Your task to perform on an android device: change your default location settings in chrome Image 0: 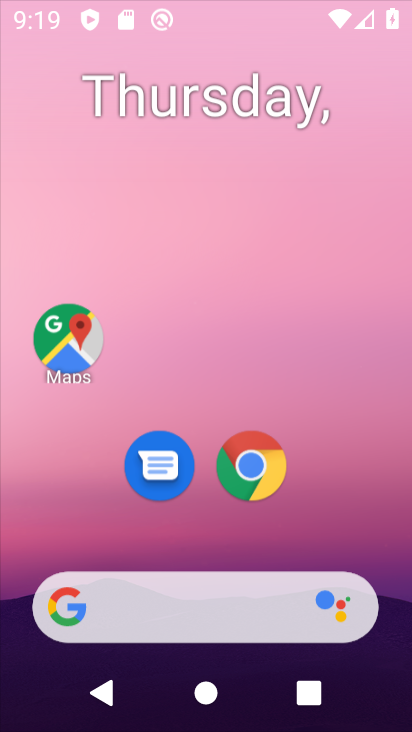
Step 0: drag from (365, 462) to (334, 85)
Your task to perform on an android device: change your default location settings in chrome Image 1: 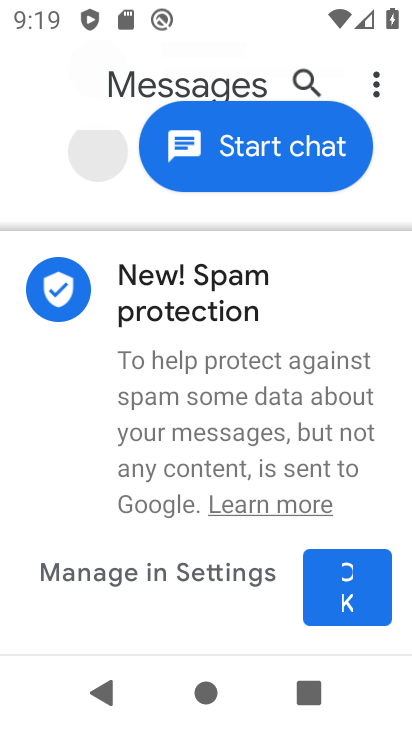
Step 1: press home button
Your task to perform on an android device: change your default location settings in chrome Image 2: 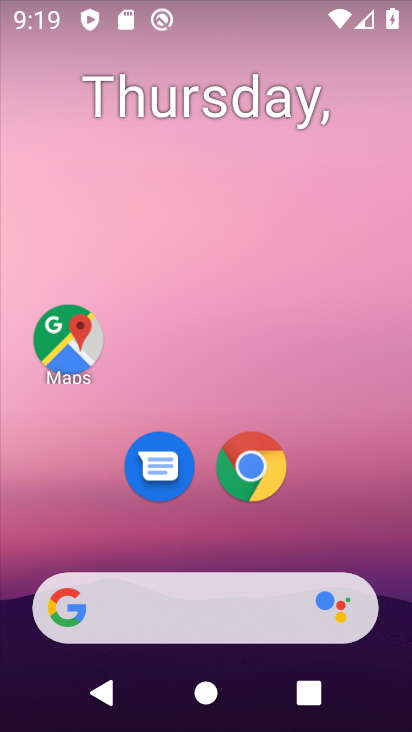
Step 2: drag from (380, 521) to (323, 219)
Your task to perform on an android device: change your default location settings in chrome Image 3: 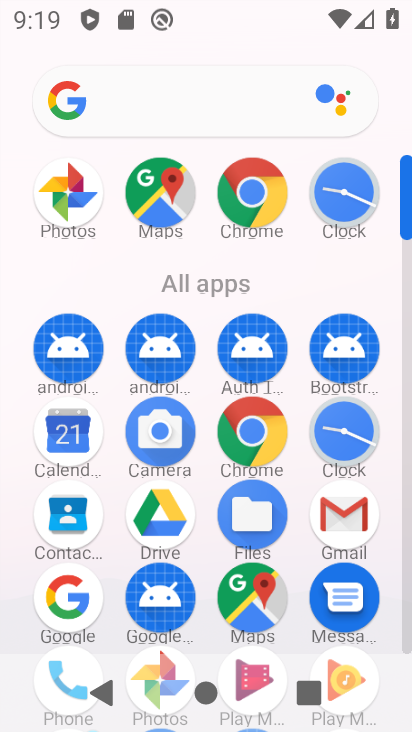
Step 3: click (264, 441)
Your task to perform on an android device: change your default location settings in chrome Image 4: 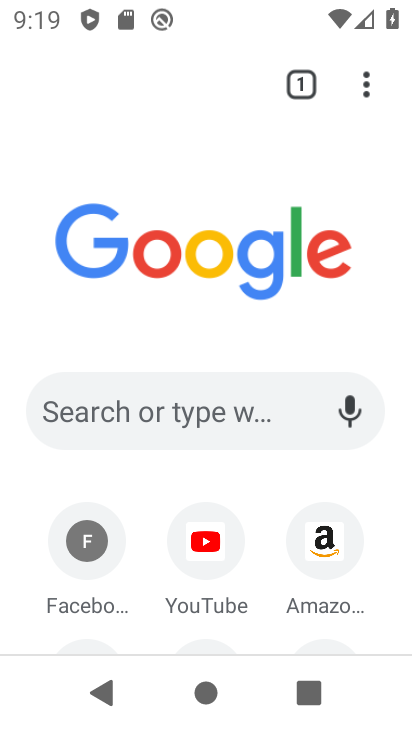
Step 4: drag from (371, 105) to (148, 529)
Your task to perform on an android device: change your default location settings in chrome Image 5: 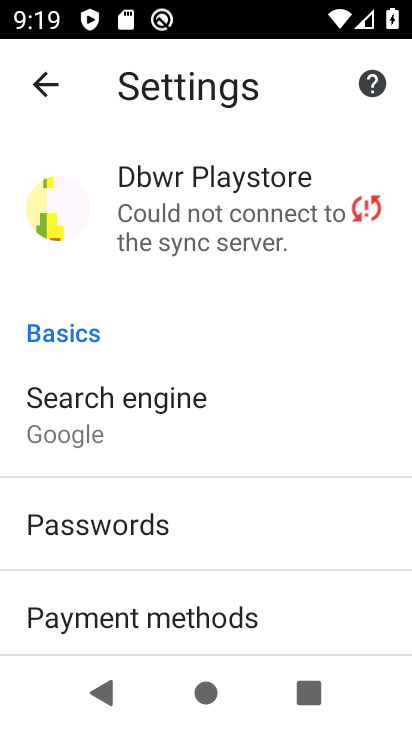
Step 5: drag from (256, 527) to (263, 244)
Your task to perform on an android device: change your default location settings in chrome Image 6: 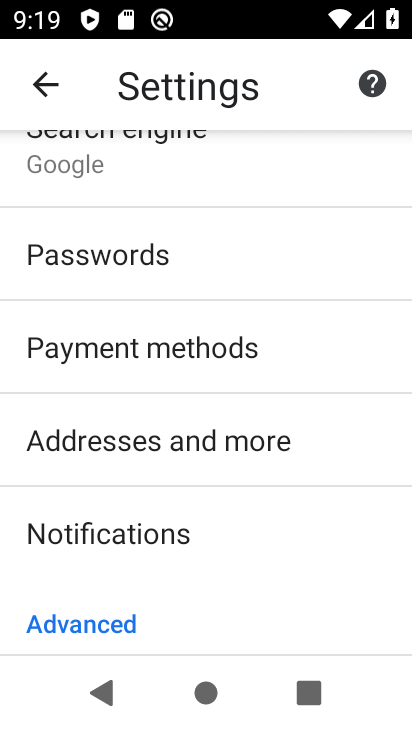
Step 6: drag from (270, 631) to (306, 199)
Your task to perform on an android device: change your default location settings in chrome Image 7: 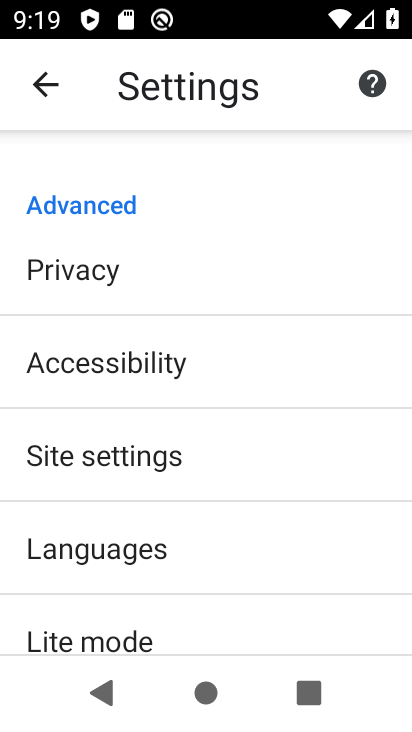
Step 7: click (169, 455)
Your task to perform on an android device: change your default location settings in chrome Image 8: 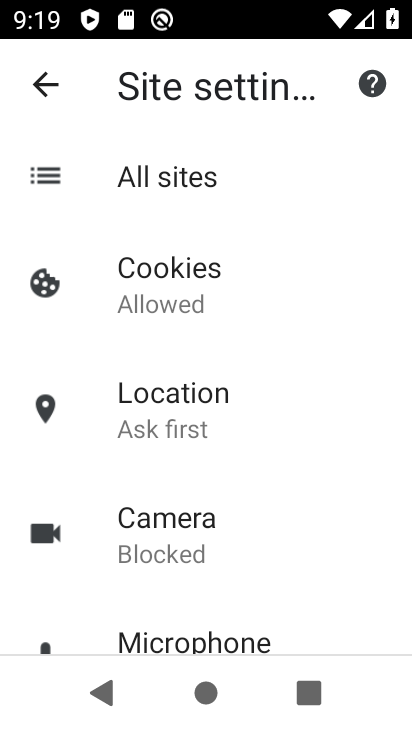
Step 8: click (212, 428)
Your task to perform on an android device: change your default location settings in chrome Image 9: 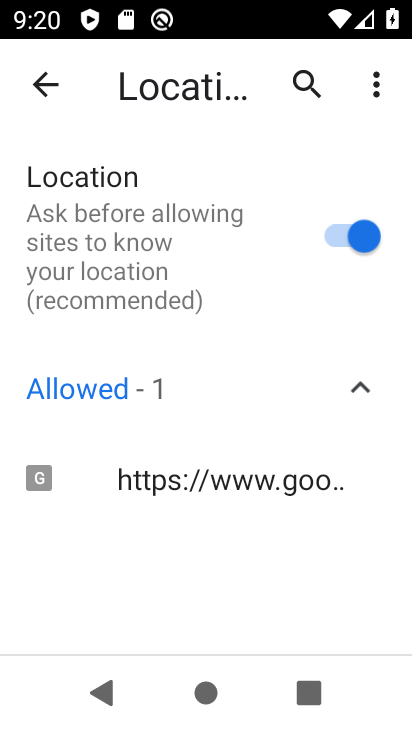
Step 9: click (339, 243)
Your task to perform on an android device: change your default location settings in chrome Image 10: 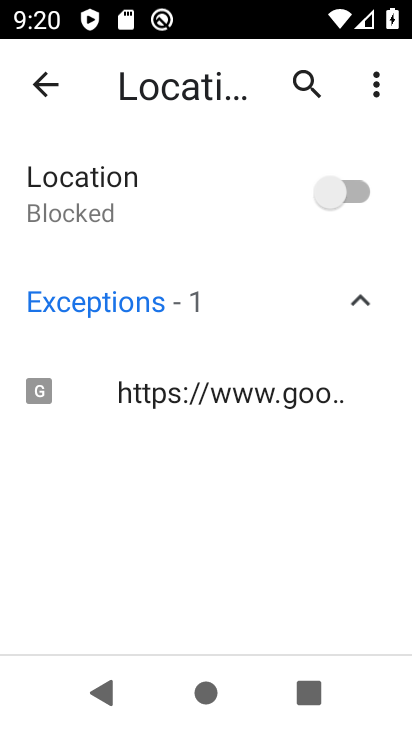
Step 10: task complete